Your task to perform on an android device: turn notification dots on Image 0: 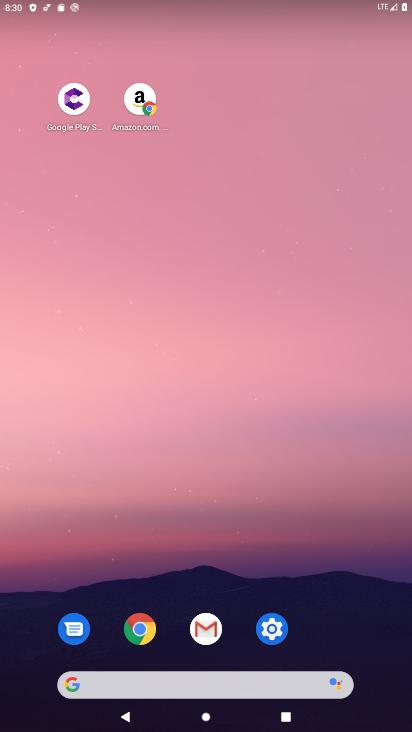
Step 0: click (267, 638)
Your task to perform on an android device: turn notification dots on Image 1: 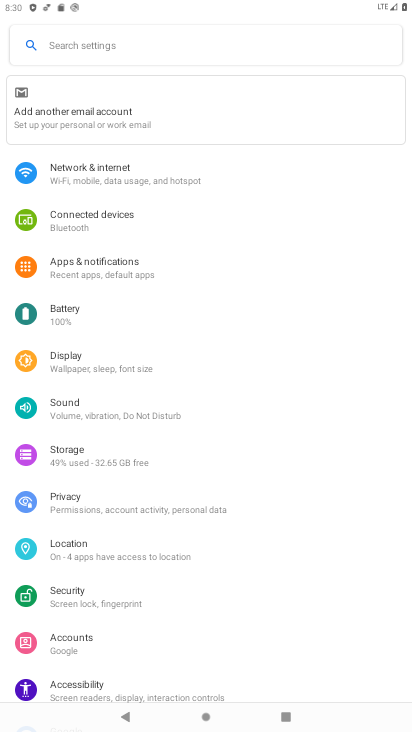
Step 1: click (117, 39)
Your task to perform on an android device: turn notification dots on Image 2: 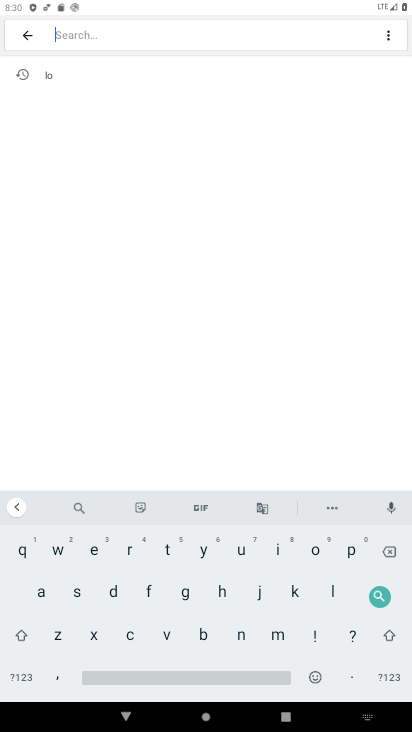
Step 2: click (236, 637)
Your task to perform on an android device: turn notification dots on Image 3: 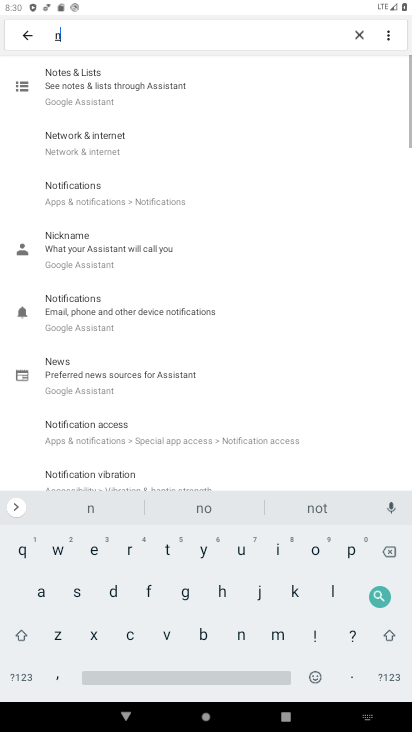
Step 3: click (316, 554)
Your task to perform on an android device: turn notification dots on Image 4: 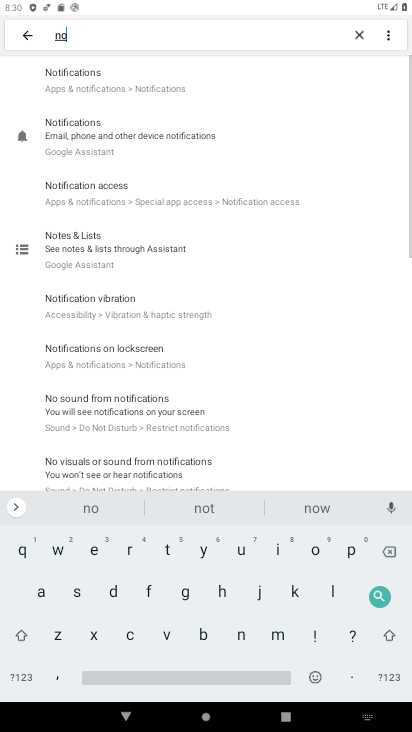
Step 4: click (86, 86)
Your task to perform on an android device: turn notification dots on Image 5: 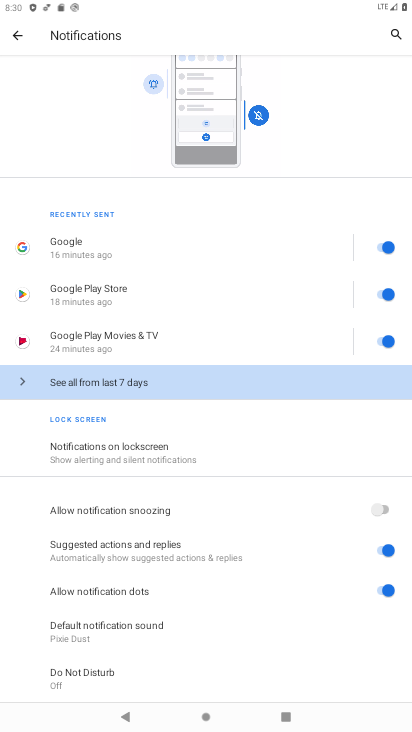
Step 5: click (213, 594)
Your task to perform on an android device: turn notification dots on Image 6: 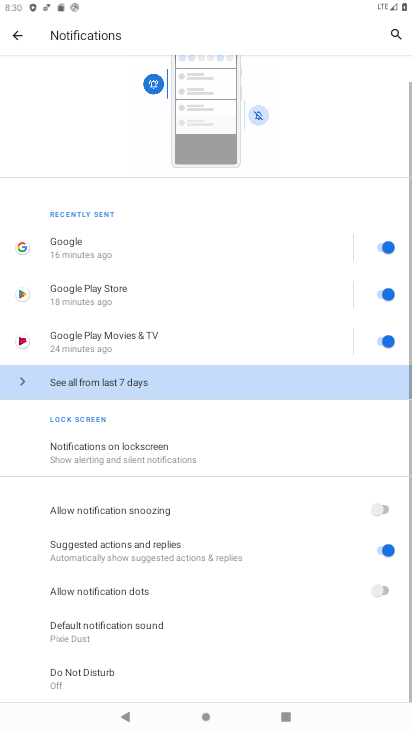
Step 6: click (213, 594)
Your task to perform on an android device: turn notification dots on Image 7: 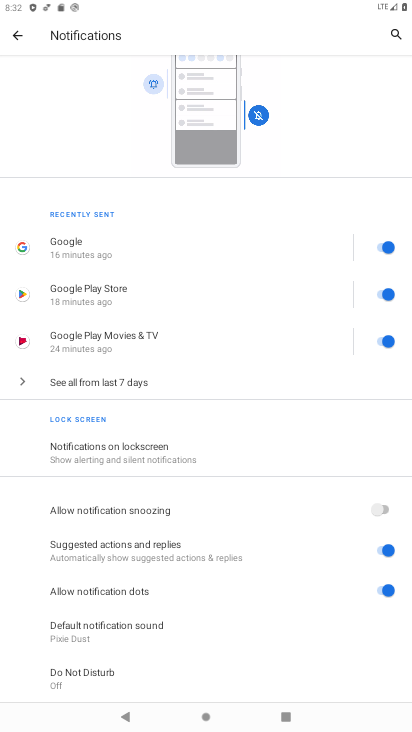
Step 7: task complete